Your task to perform on an android device: change the clock style Image 0: 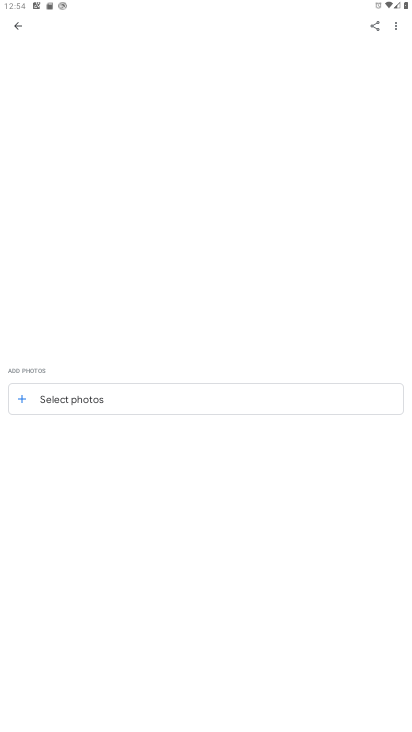
Step 0: press home button
Your task to perform on an android device: change the clock style Image 1: 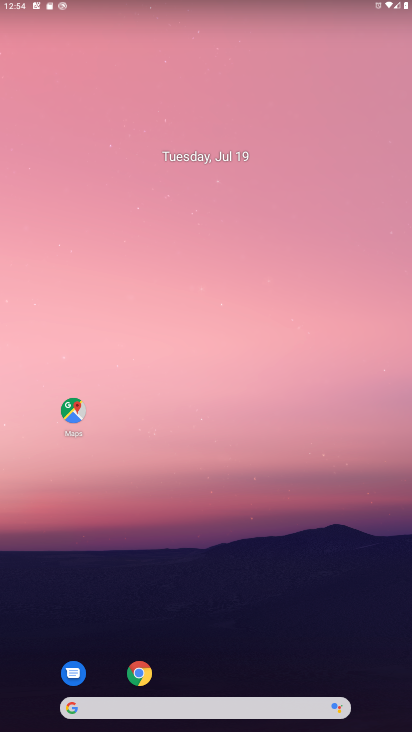
Step 1: drag from (262, 425) to (270, 276)
Your task to perform on an android device: change the clock style Image 2: 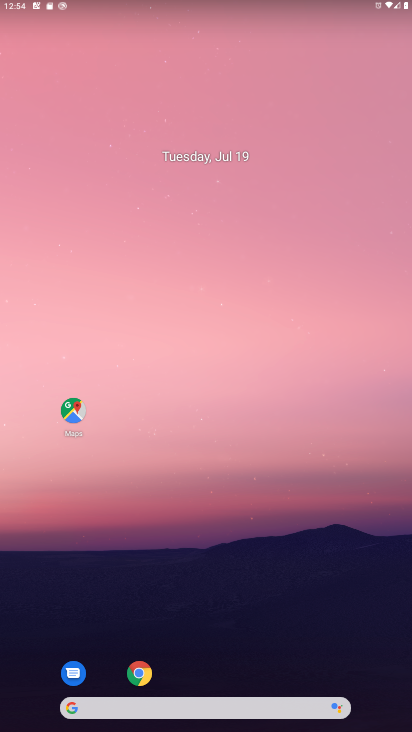
Step 2: drag from (209, 673) to (240, 180)
Your task to perform on an android device: change the clock style Image 3: 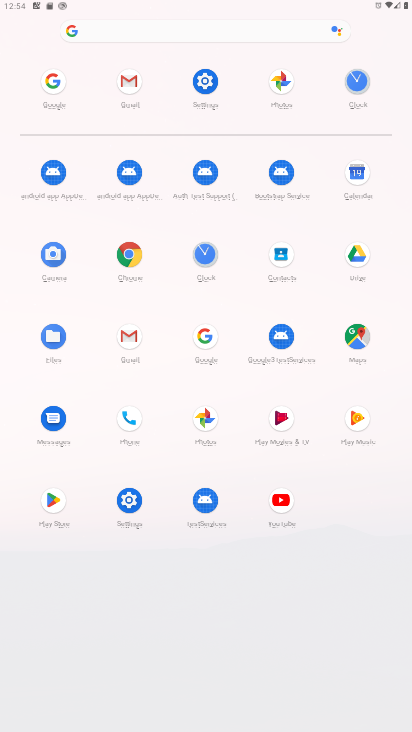
Step 3: click (353, 94)
Your task to perform on an android device: change the clock style Image 4: 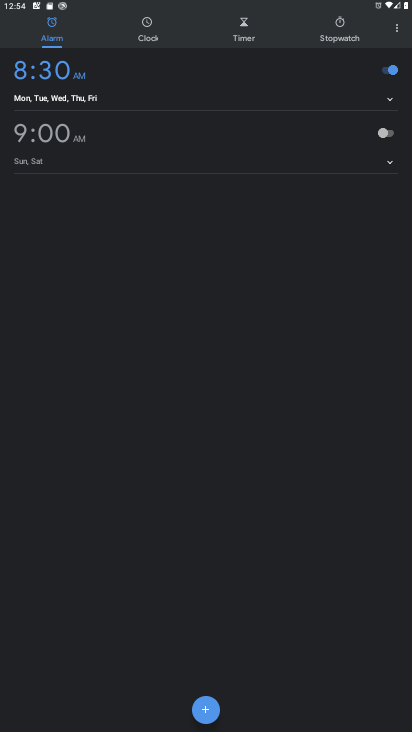
Step 4: click (391, 29)
Your task to perform on an android device: change the clock style Image 5: 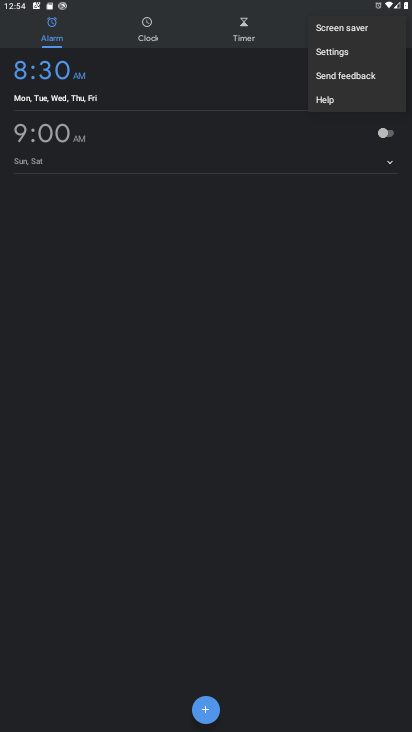
Step 5: click (361, 50)
Your task to perform on an android device: change the clock style Image 6: 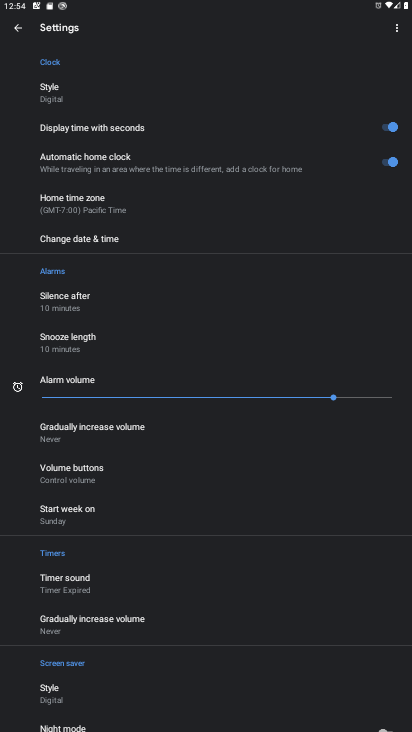
Step 6: click (60, 90)
Your task to perform on an android device: change the clock style Image 7: 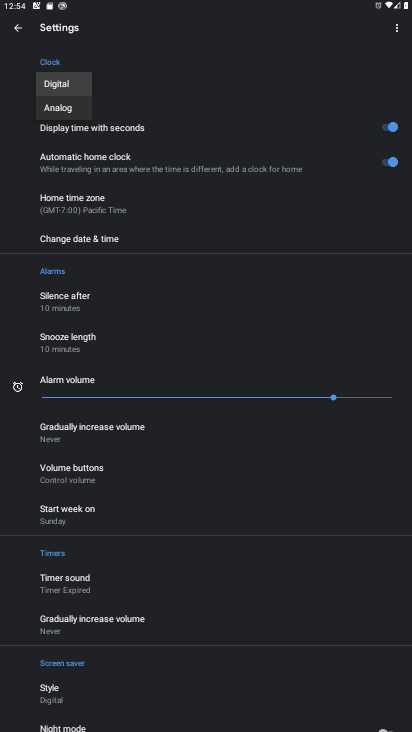
Step 7: click (46, 112)
Your task to perform on an android device: change the clock style Image 8: 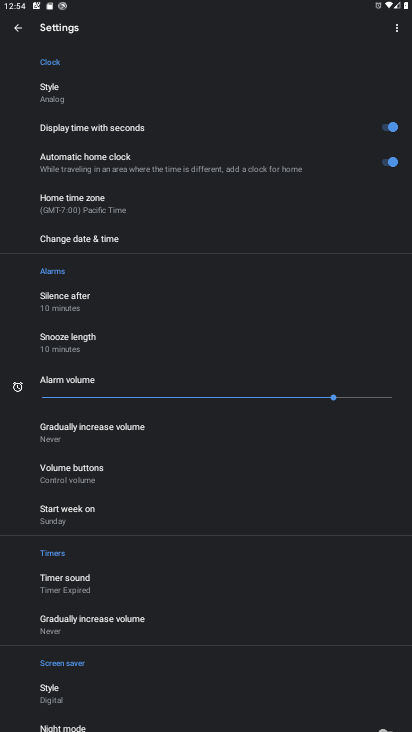
Step 8: task complete